Your task to perform on an android device: Go to Google Image 0: 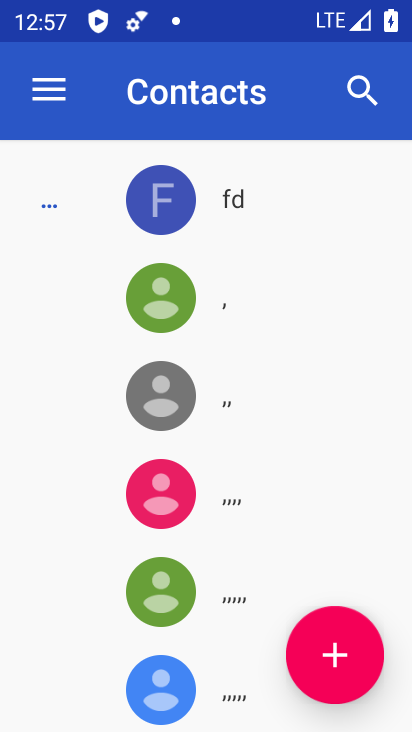
Step 0: press home button
Your task to perform on an android device: Go to Google Image 1: 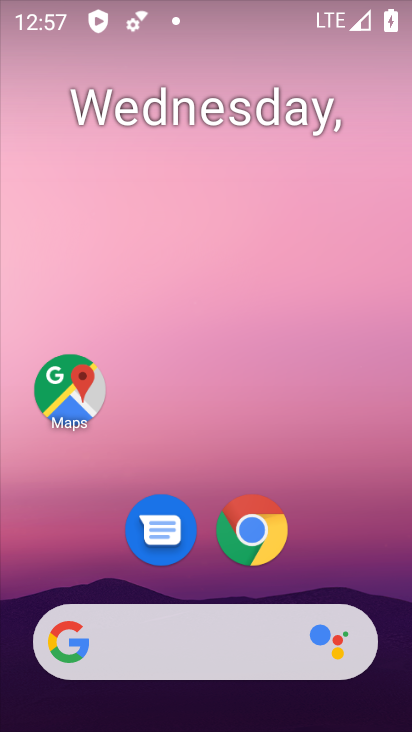
Step 1: drag from (377, 544) to (356, 96)
Your task to perform on an android device: Go to Google Image 2: 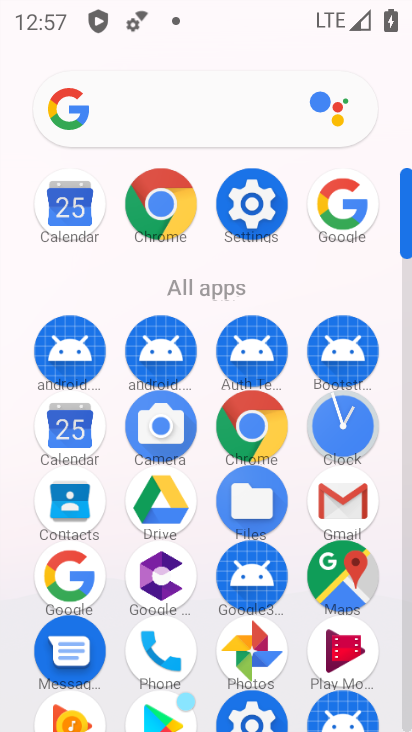
Step 2: click (95, 590)
Your task to perform on an android device: Go to Google Image 3: 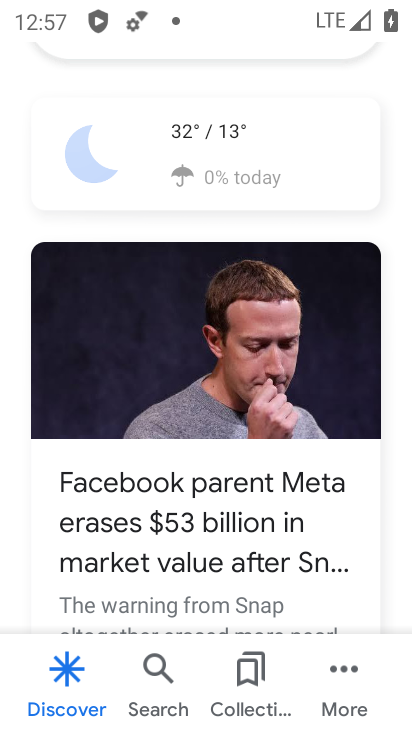
Step 3: task complete